Your task to perform on an android device: set an alarm Image 0: 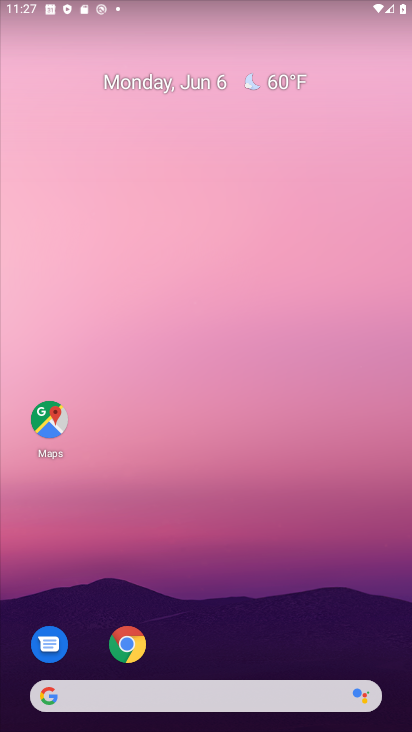
Step 0: drag from (140, 725) to (157, 98)
Your task to perform on an android device: set an alarm Image 1: 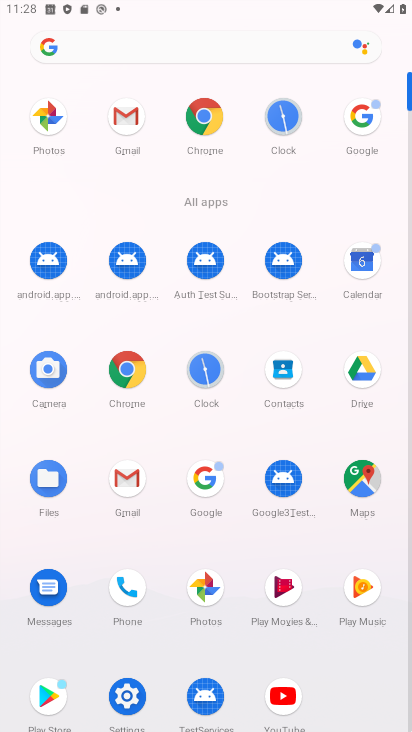
Step 1: click (208, 380)
Your task to perform on an android device: set an alarm Image 2: 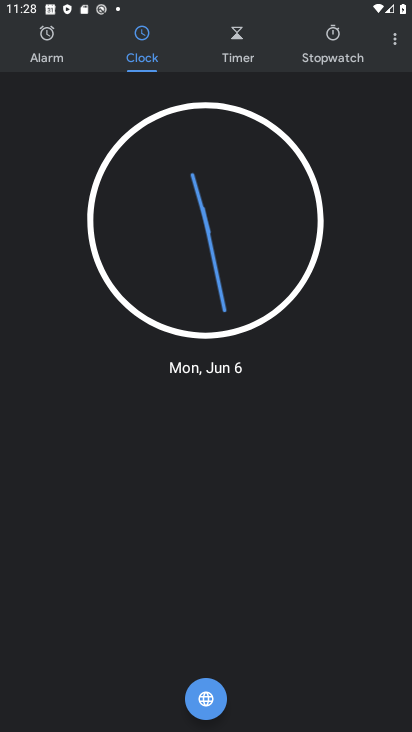
Step 2: click (49, 43)
Your task to perform on an android device: set an alarm Image 3: 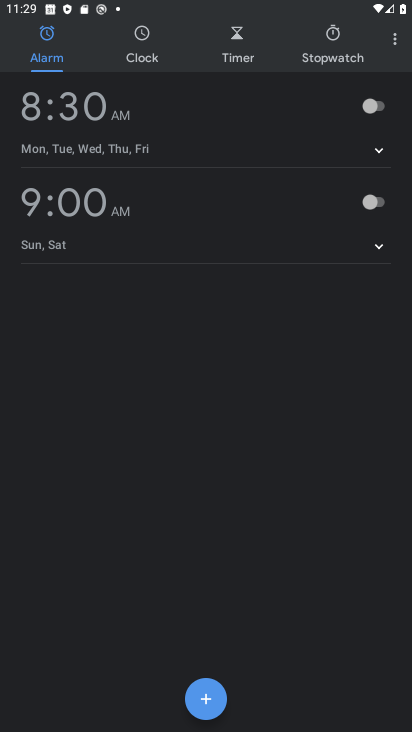
Step 3: click (377, 113)
Your task to perform on an android device: set an alarm Image 4: 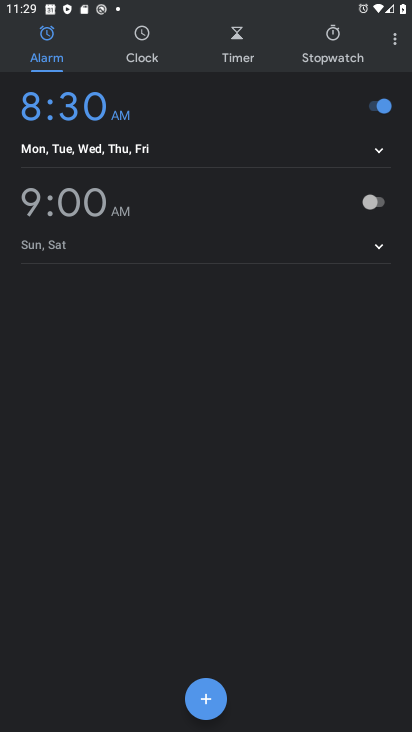
Step 4: task complete